Your task to perform on an android device: change the clock display to digital Image 0: 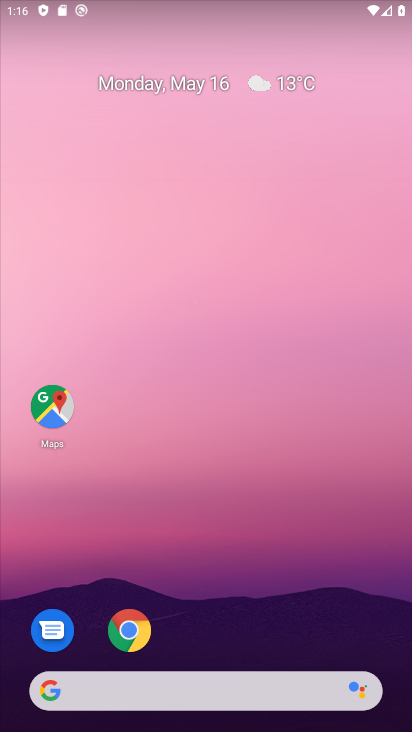
Step 0: drag from (192, 336) to (147, 183)
Your task to perform on an android device: change the clock display to digital Image 1: 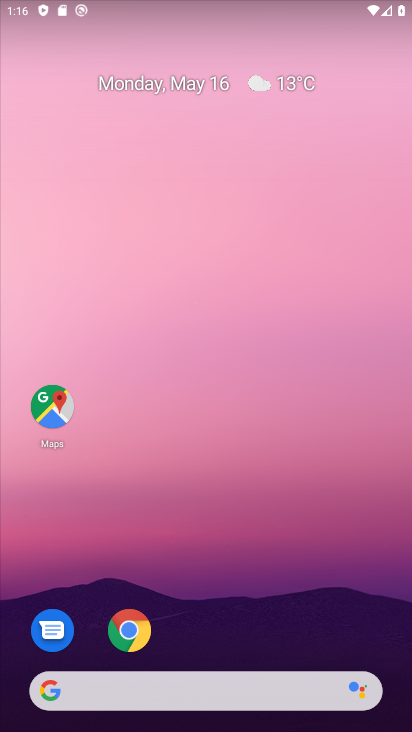
Step 1: drag from (341, 478) to (298, 148)
Your task to perform on an android device: change the clock display to digital Image 2: 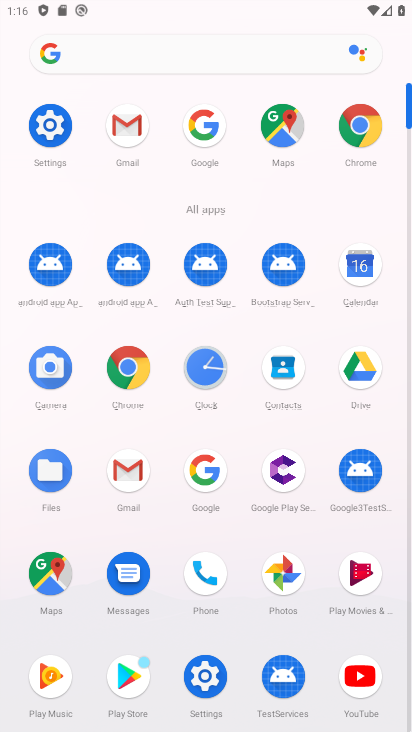
Step 2: click (108, 290)
Your task to perform on an android device: change the clock display to digital Image 3: 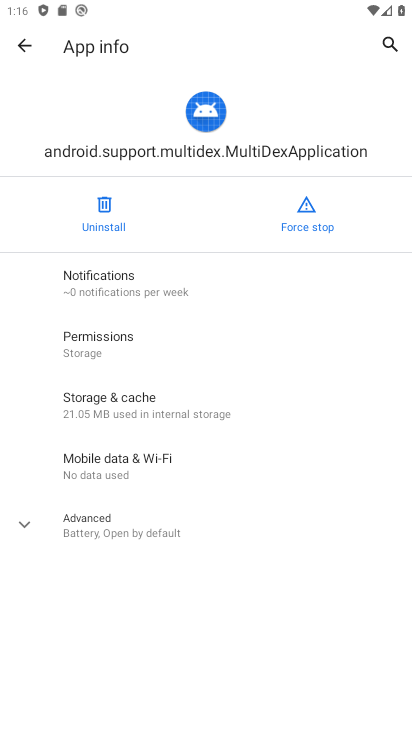
Step 3: press home button
Your task to perform on an android device: change the clock display to digital Image 4: 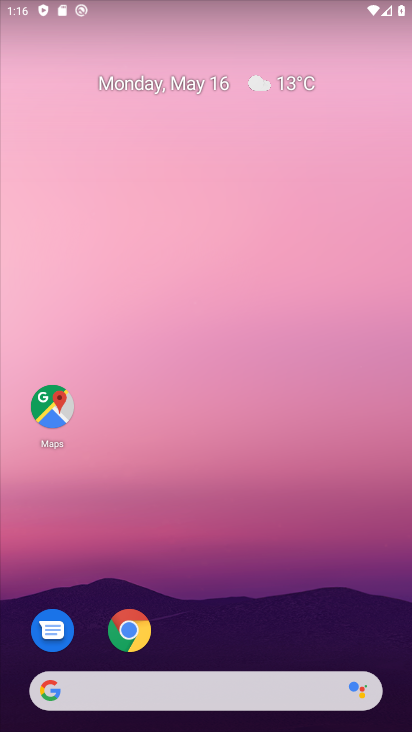
Step 4: drag from (244, 567) to (187, 149)
Your task to perform on an android device: change the clock display to digital Image 5: 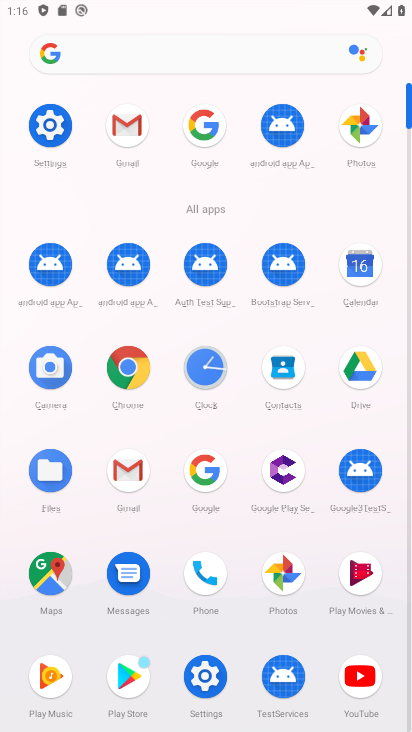
Step 5: click (207, 364)
Your task to perform on an android device: change the clock display to digital Image 6: 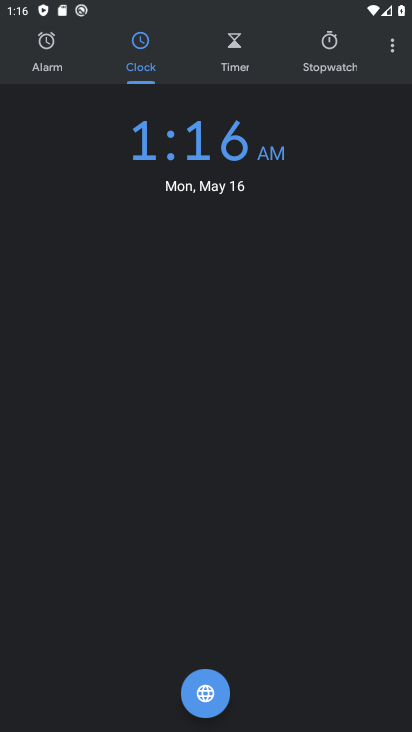
Step 6: click (385, 47)
Your task to perform on an android device: change the clock display to digital Image 7: 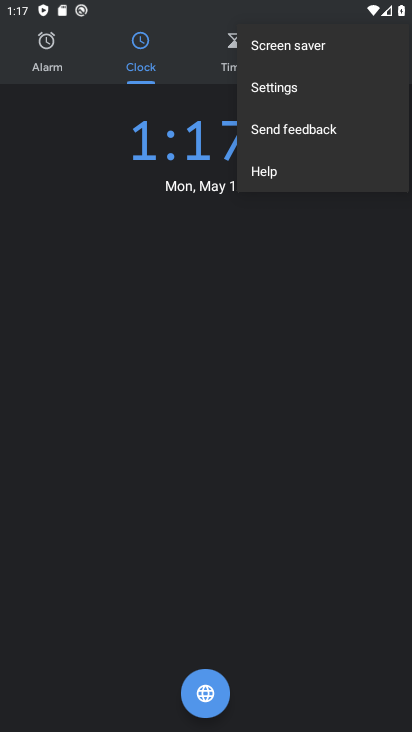
Step 7: click (383, 97)
Your task to perform on an android device: change the clock display to digital Image 8: 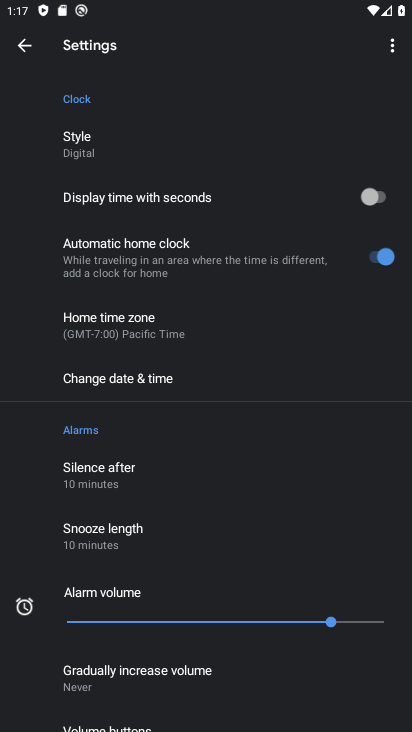
Step 8: drag from (214, 536) to (199, 131)
Your task to perform on an android device: change the clock display to digital Image 9: 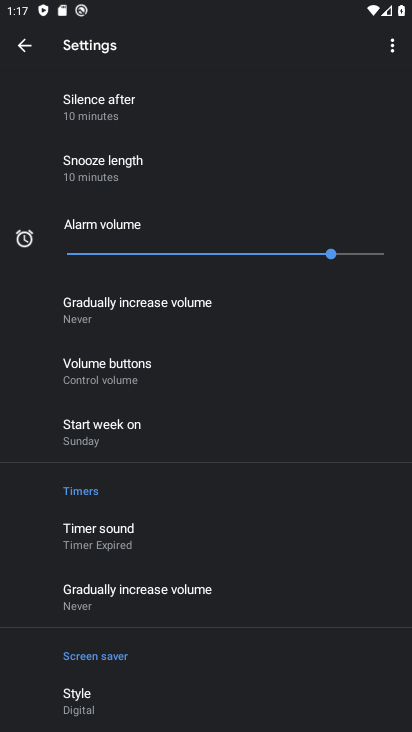
Step 9: drag from (139, 651) to (240, 267)
Your task to perform on an android device: change the clock display to digital Image 10: 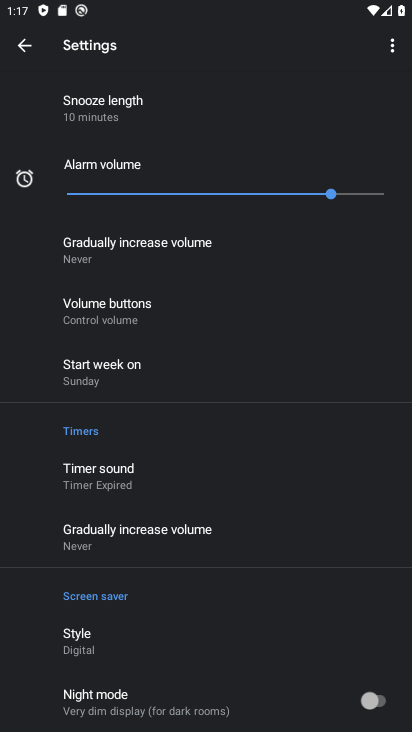
Step 10: drag from (200, 114) to (227, 659)
Your task to perform on an android device: change the clock display to digital Image 11: 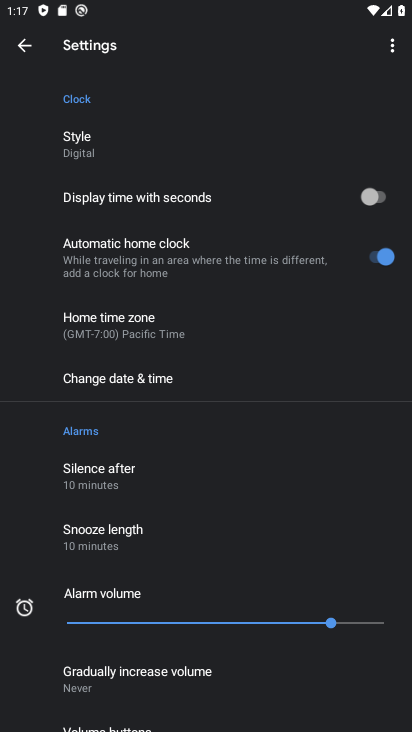
Step 11: drag from (235, 125) to (216, 436)
Your task to perform on an android device: change the clock display to digital Image 12: 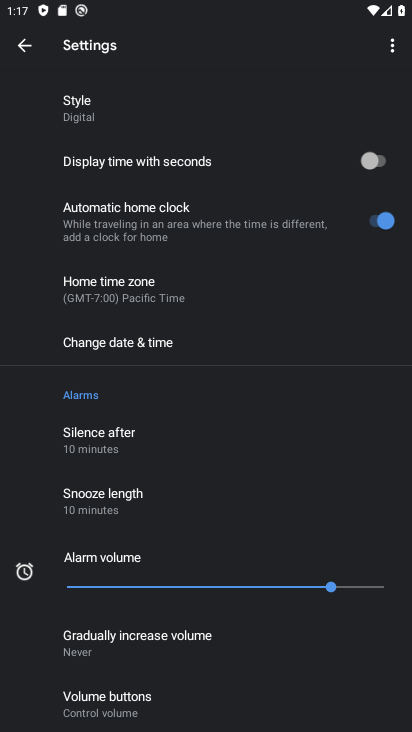
Step 12: click (135, 104)
Your task to perform on an android device: change the clock display to digital Image 13: 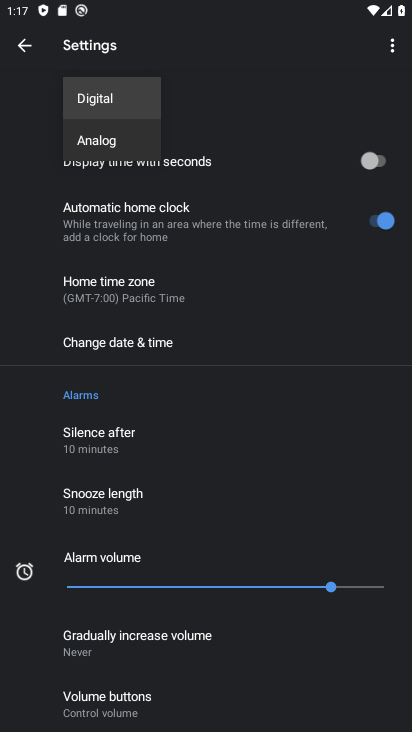
Step 13: click (134, 105)
Your task to perform on an android device: change the clock display to digital Image 14: 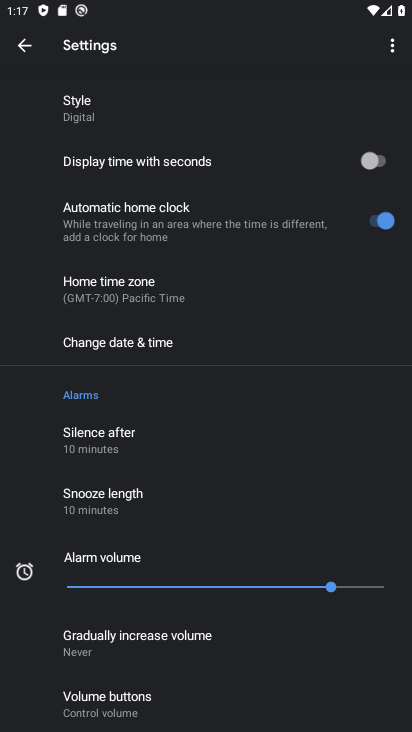
Step 14: task complete